Your task to perform on an android device: turn vacation reply on in the gmail app Image 0: 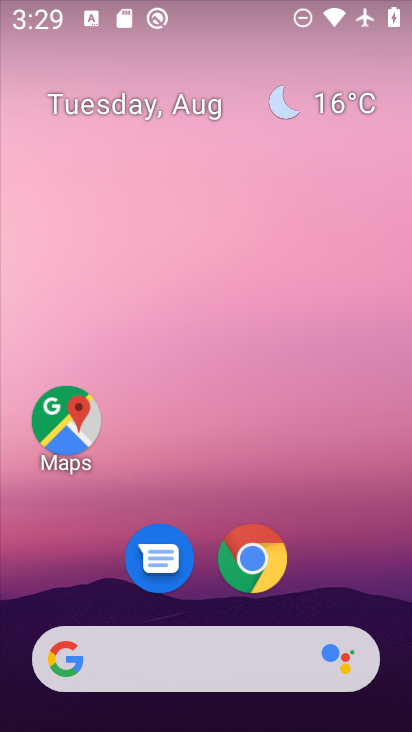
Step 0: drag from (179, 459) to (164, 61)
Your task to perform on an android device: turn vacation reply on in the gmail app Image 1: 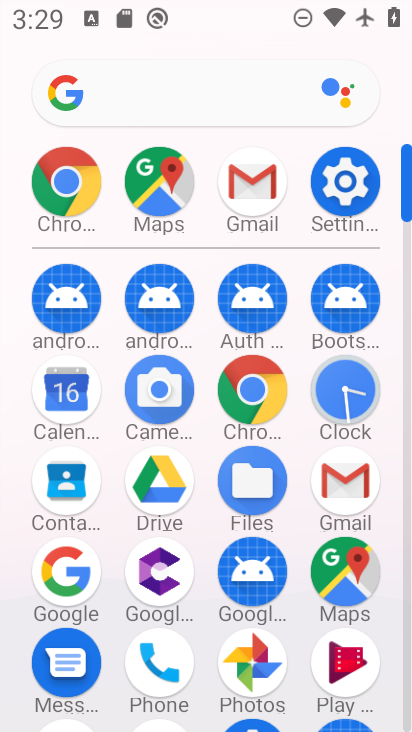
Step 1: click (229, 183)
Your task to perform on an android device: turn vacation reply on in the gmail app Image 2: 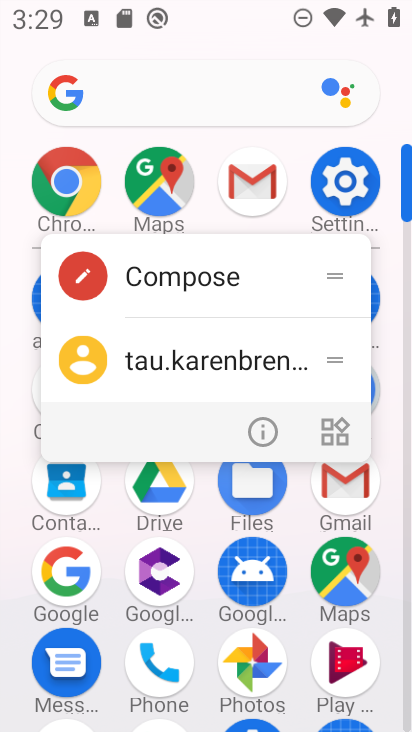
Step 2: click (229, 183)
Your task to perform on an android device: turn vacation reply on in the gmail app Image 3: 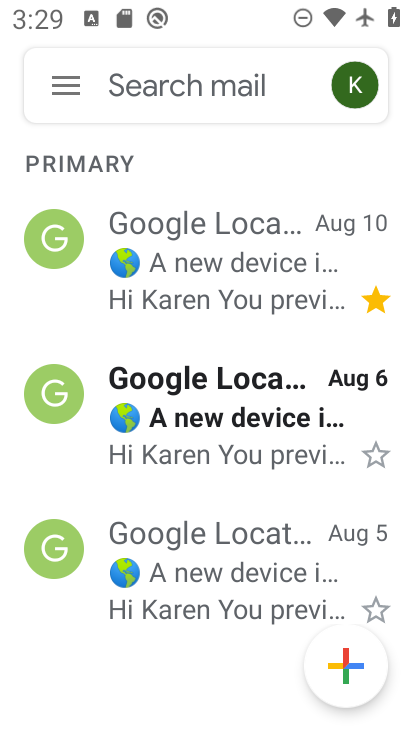
Step 3: click (100, 74)
Your task to perform on an android device: turn vacation reply on in the gmail app Image 4: 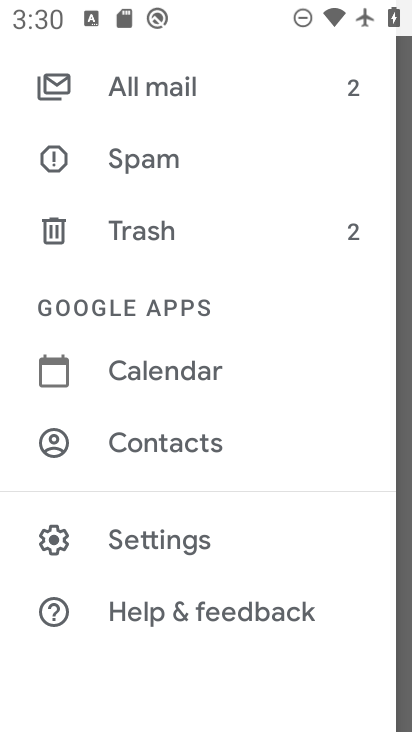
Step 4: click (146, 549)
Your task to perform on an android device: turn vacation reply on in the gmail app Image 5: 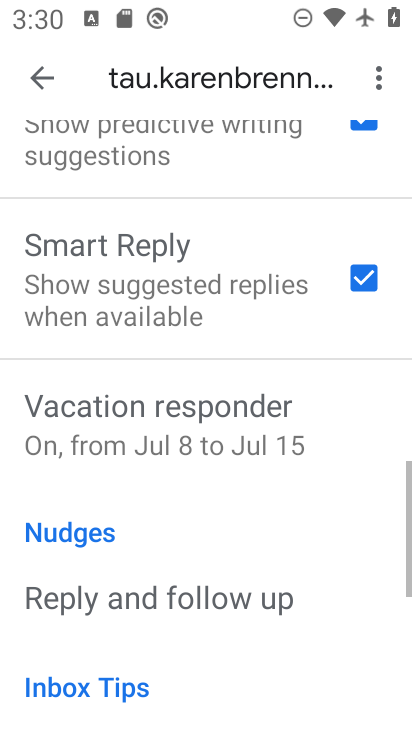
Step 5: drag from (226, 419) to (221, 373)
Your task to perform on an android device: turn vacation reply on in the gmail app Image 6: 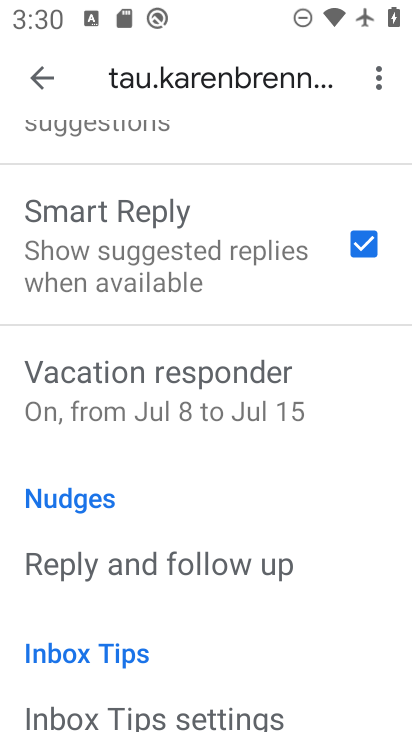
Step 6: click (221, 373)
Your task to perform on an android device: turn vacation reply on in the gmail app Image 7: 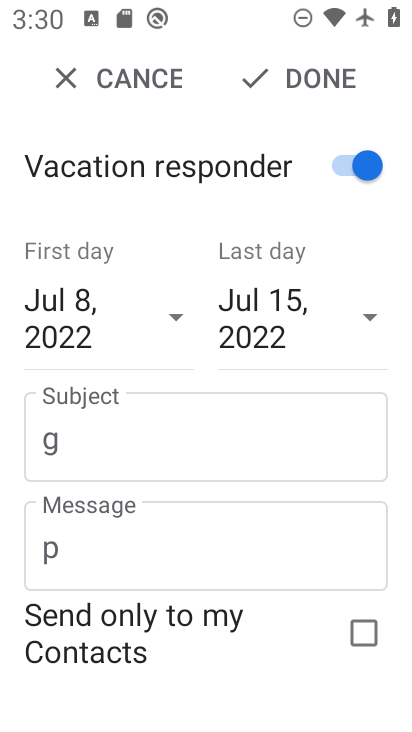
Step 7: task complete